Your task to perform on an android device: all mails in gmail Image 0: 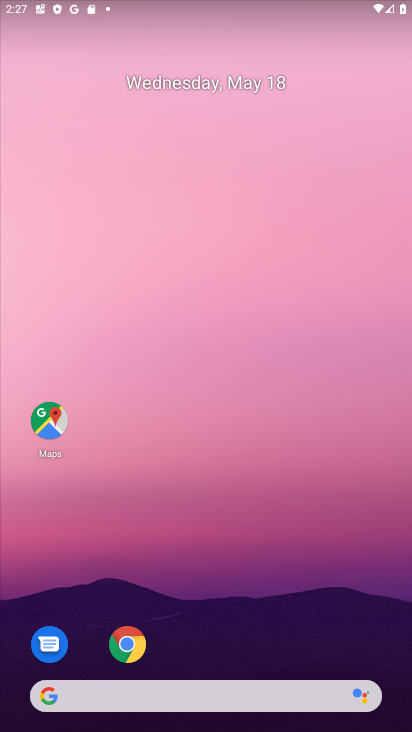
Step 0: drag from (282, 609) to (200, 100)
Your task to perform on an android device: all mails in gmail Image 1: 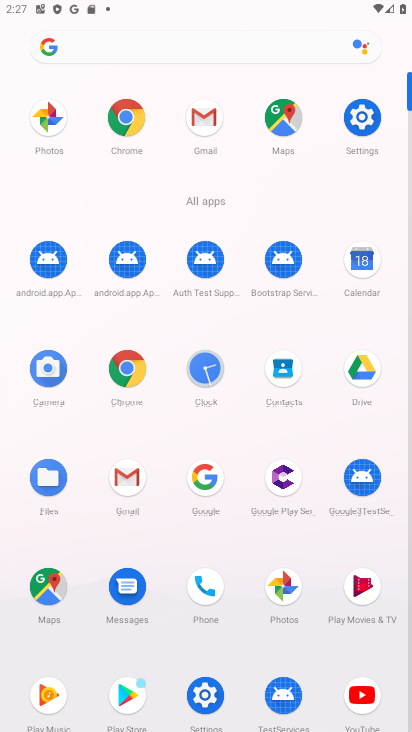
Step 1: click (203, 116)
Your task to perform on an android device: all mails in gmail Image 2: 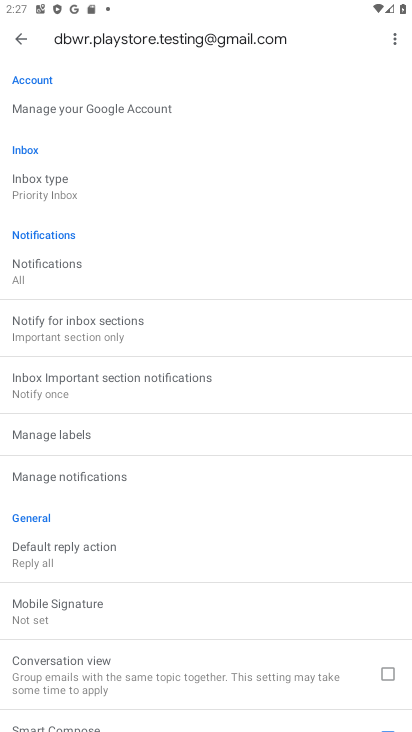
Step 2: click (15, 40)
Your task to perform on an android device: all mails in gmail Image 3: 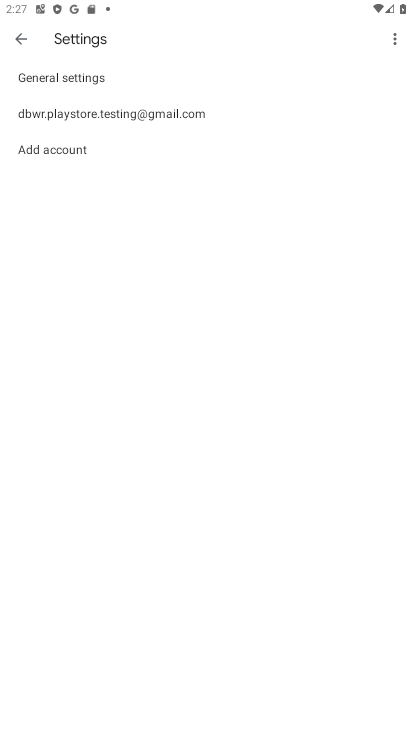
Step 3: click (15, 39)
Your task to perform on an android device: all mails in gmail Image 4: 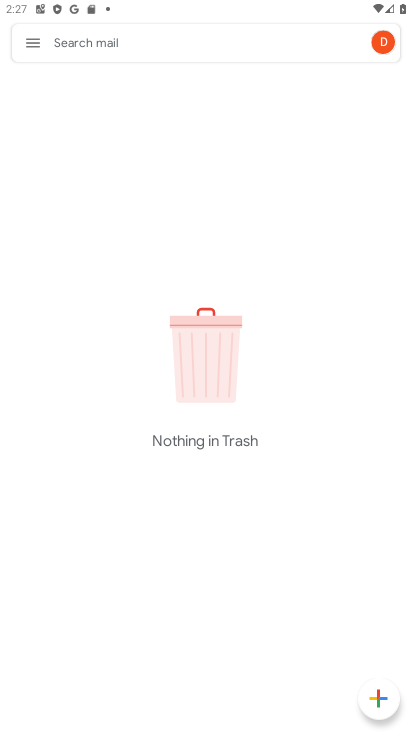
Step 4: click (22, 43)
Your task to perform on an android device: all mails in gmail Image 5: 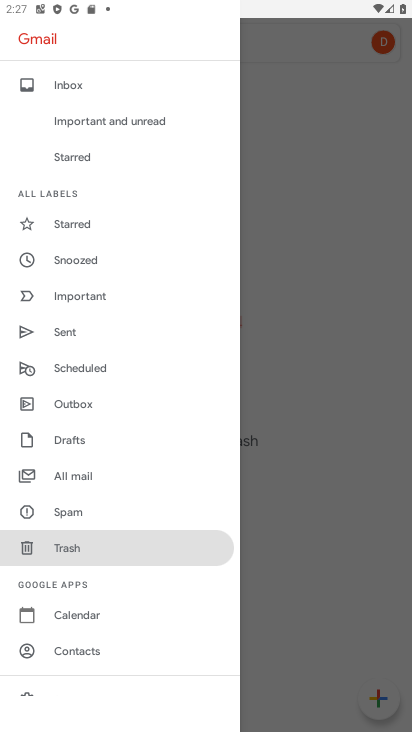
Step 5: click (88, 482)
Your task to perform on an android device: all mails in gmail Image 6: 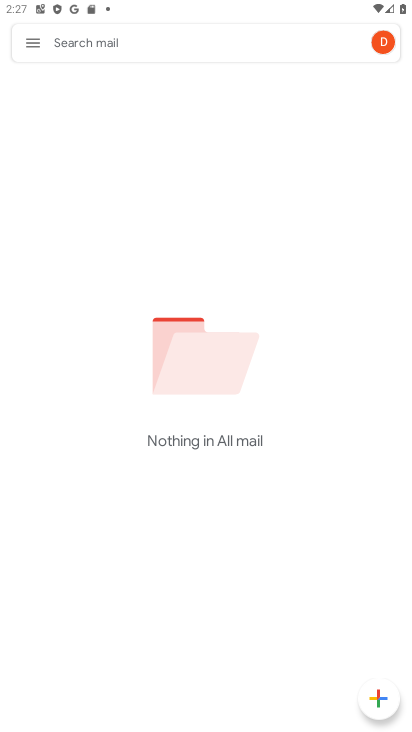
Step 6: task complete